Your task to perform on an android device: turn off wifi Image 0: 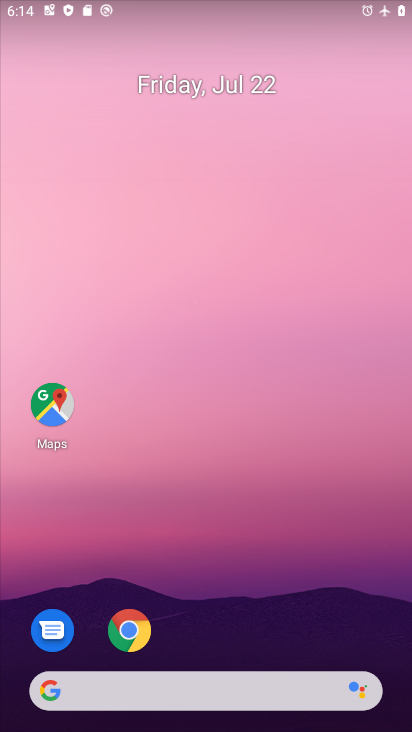
Step 0: press home button
Your task to perform on an android device: turn off wifi Image 1: 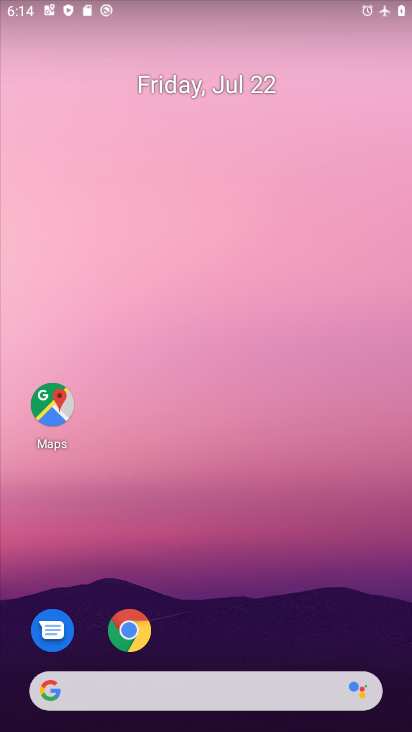
Step 1: drag from (248, 675) to (338, 32)
Your task to perform on an android device: turn off wifi Image 2: 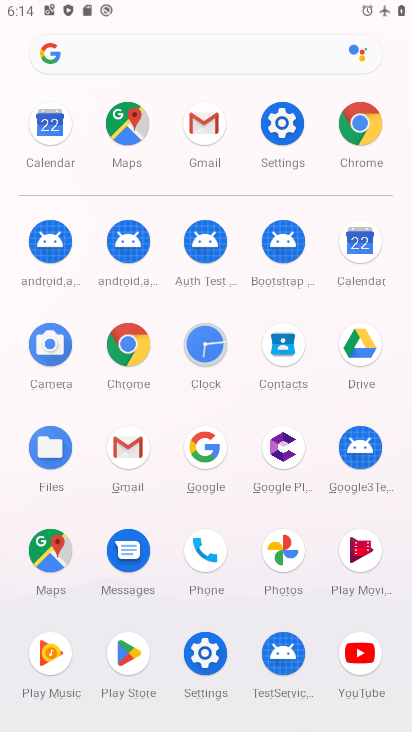
Step 2: click (288, 145)
Your task to perform on an android device: turn off wifi Image 3: 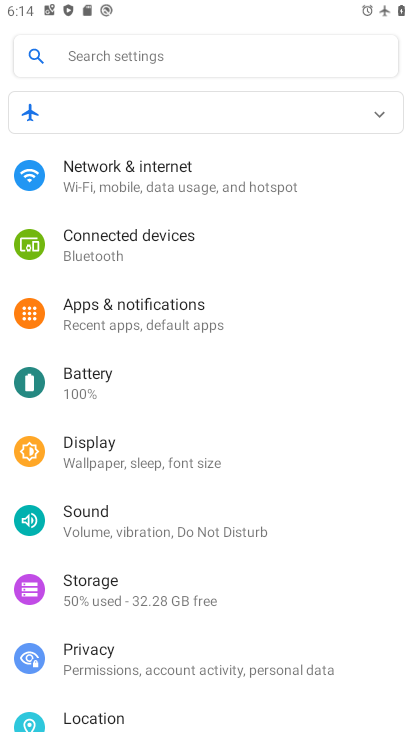
Step 3: click (170, 178)
Your task to perform on an android device: turn off wifi Image 4: 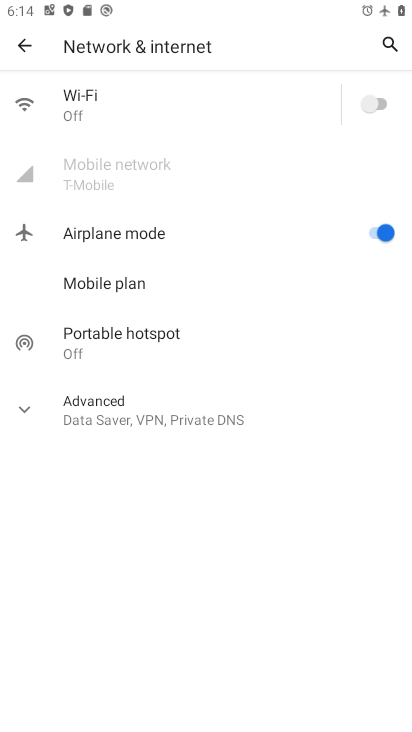
Step 4: task complete